Your task to perform on an android device: Go to Yahoo.com Image 0: 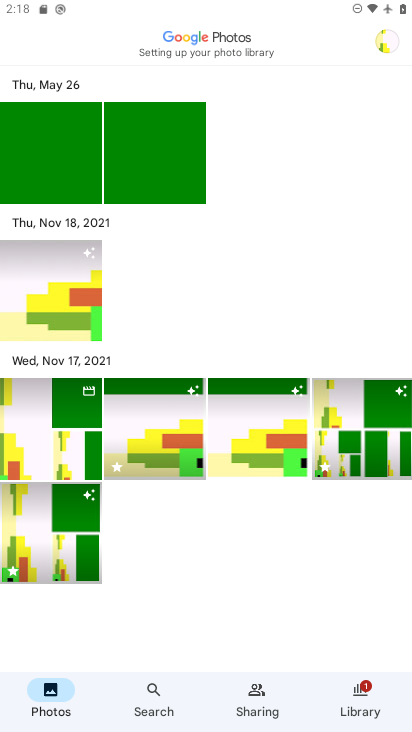
Step 0: press home button
Your task to perform on an android device: Go to Yahoo.com Image 1: 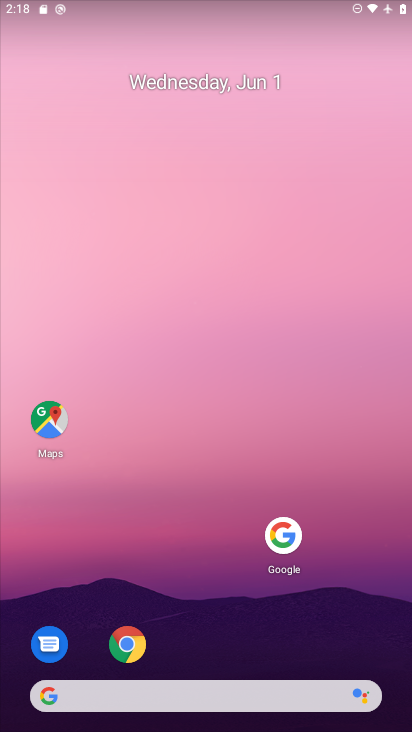
Step 1: click (128, 642)
Your task to perform on an android device: Go to Yahoo.com Image 2: 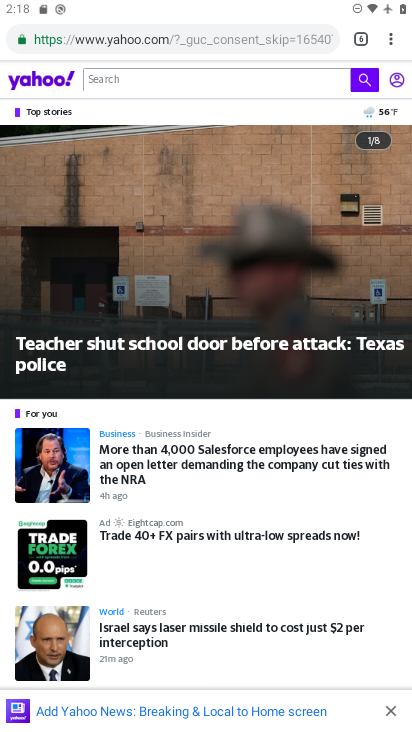
Step 2: task complete